Your task to perform on an android device: turn on the 24-hour format for clock Image 0: 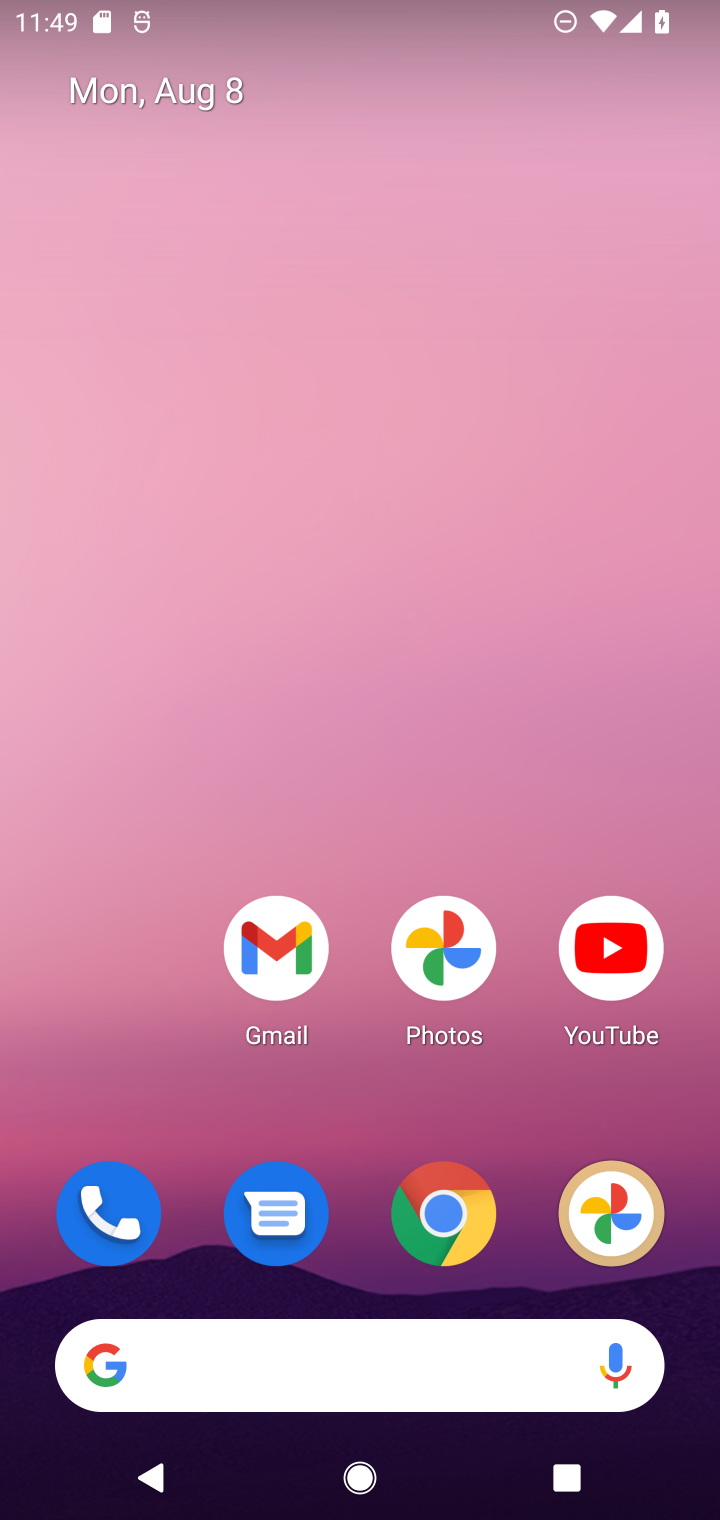
Step 0: drag from (520, 1143) to (597, 109)
Your task to perform on an android device: turn on the 24-hour format for clock Image 1: 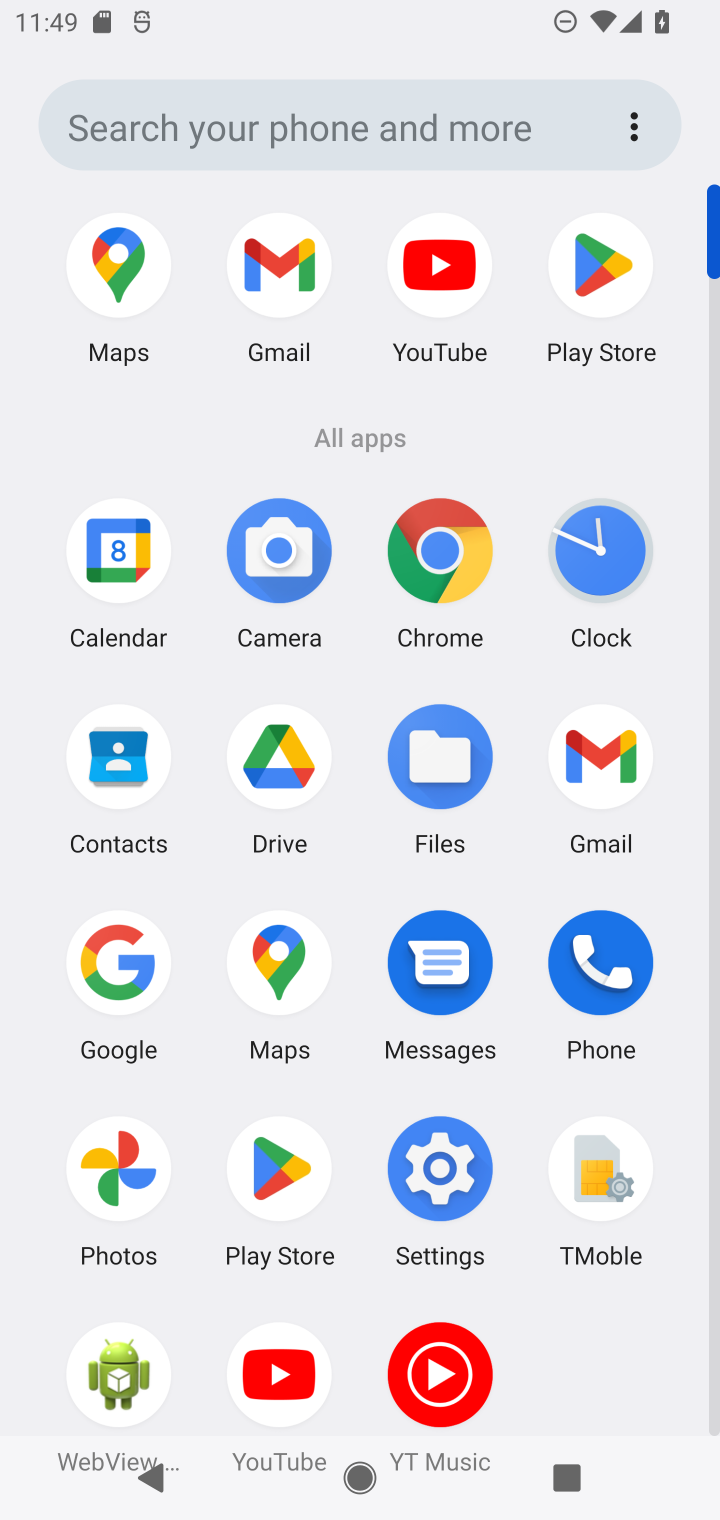
Step 1: click (596, 549)
Your task to perform on an android device: turn on the 24-hour format for clock Image 2: 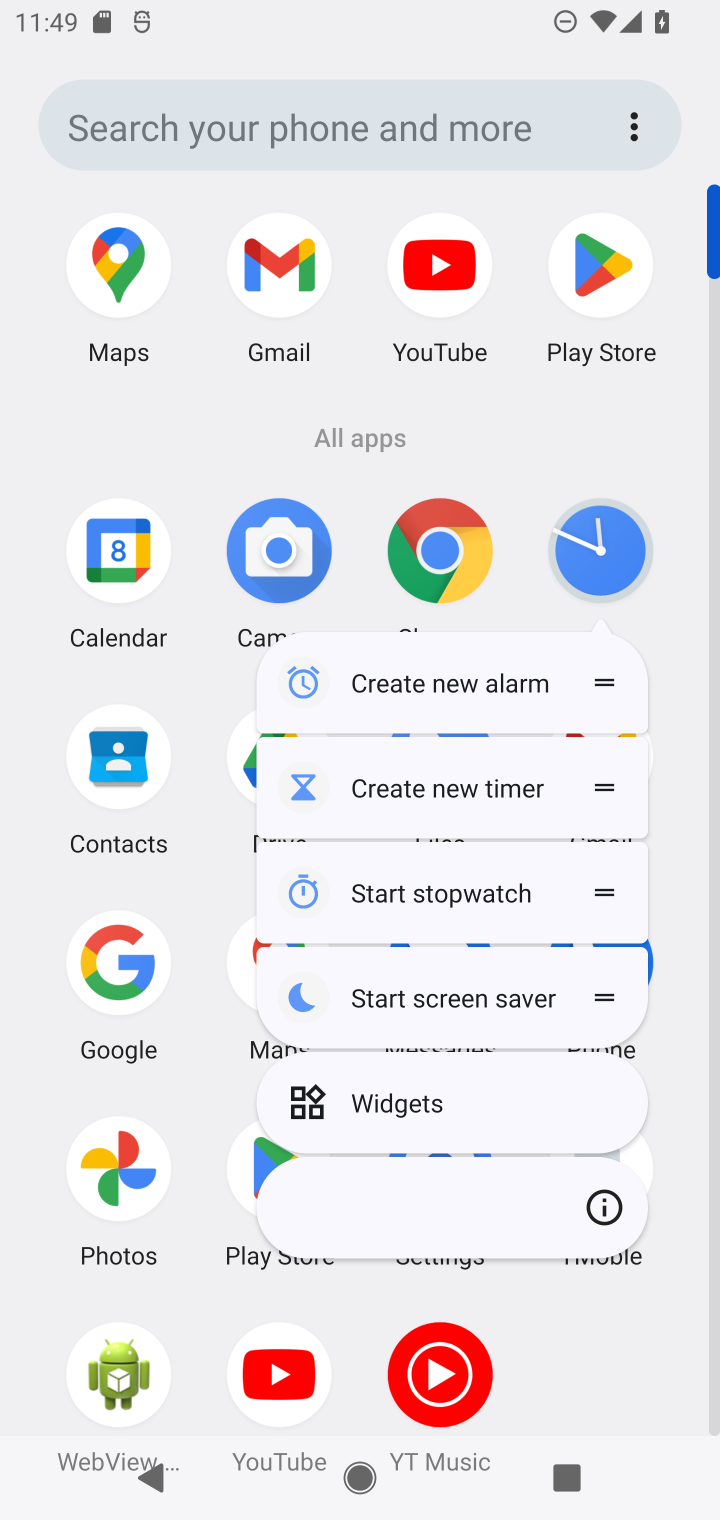
Step 2: click (609, 542)
Your task to perform on an android device: turn on the 24-hour format for clock Image 3: 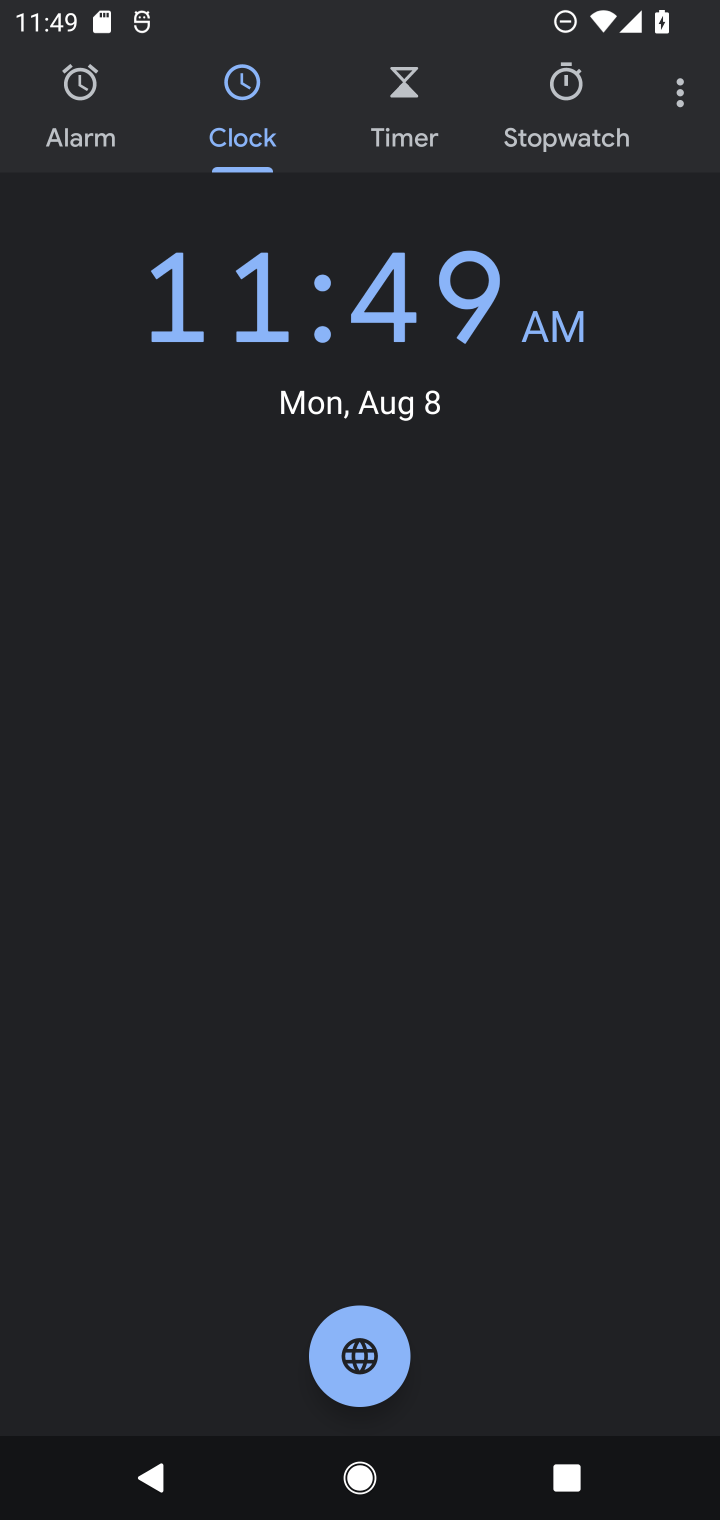
Step 3: click (690, 83)
Your task to perform on an android device: turn on the 24-hour format for clock Image 4: 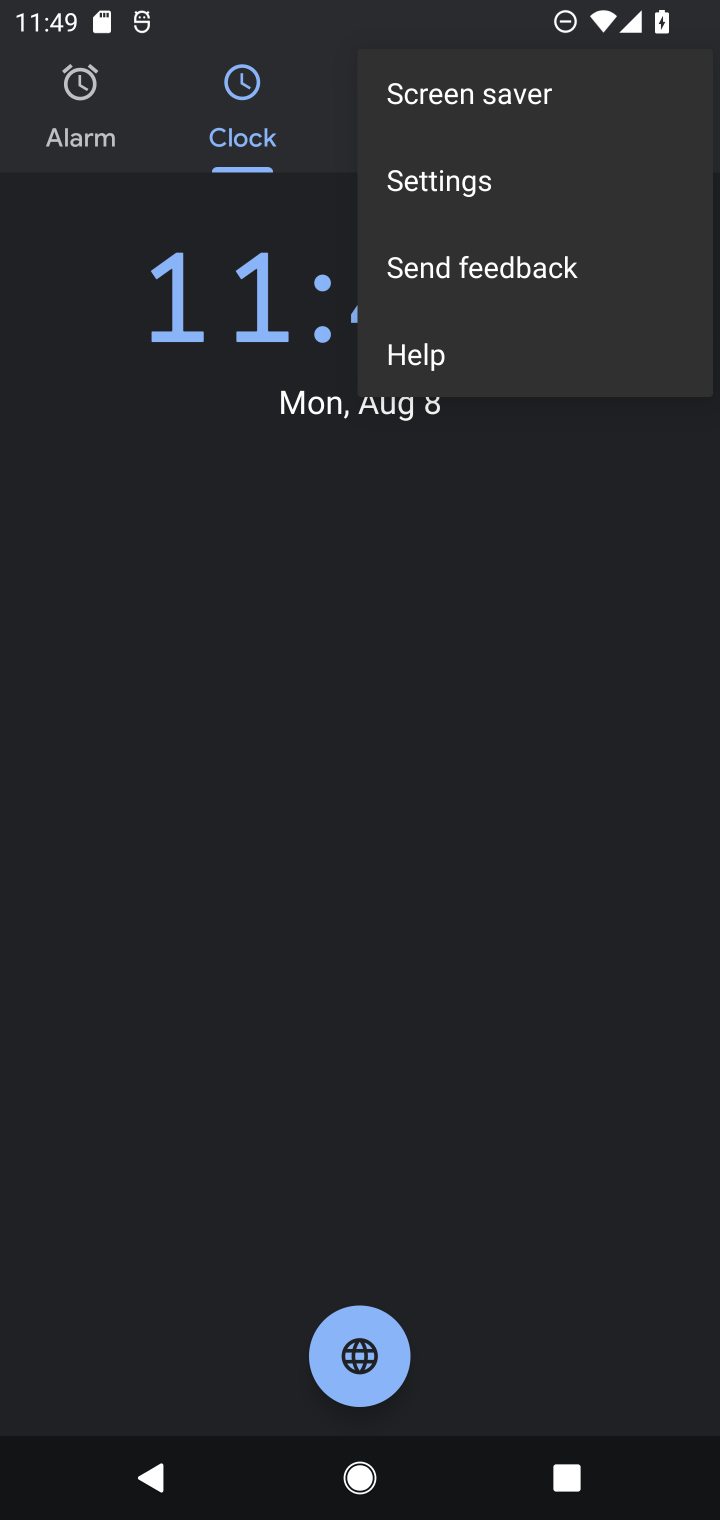
Step 4: click (513, 182)
Your task to perform on an android device: turn on the 24-hour format for clock Image 5: 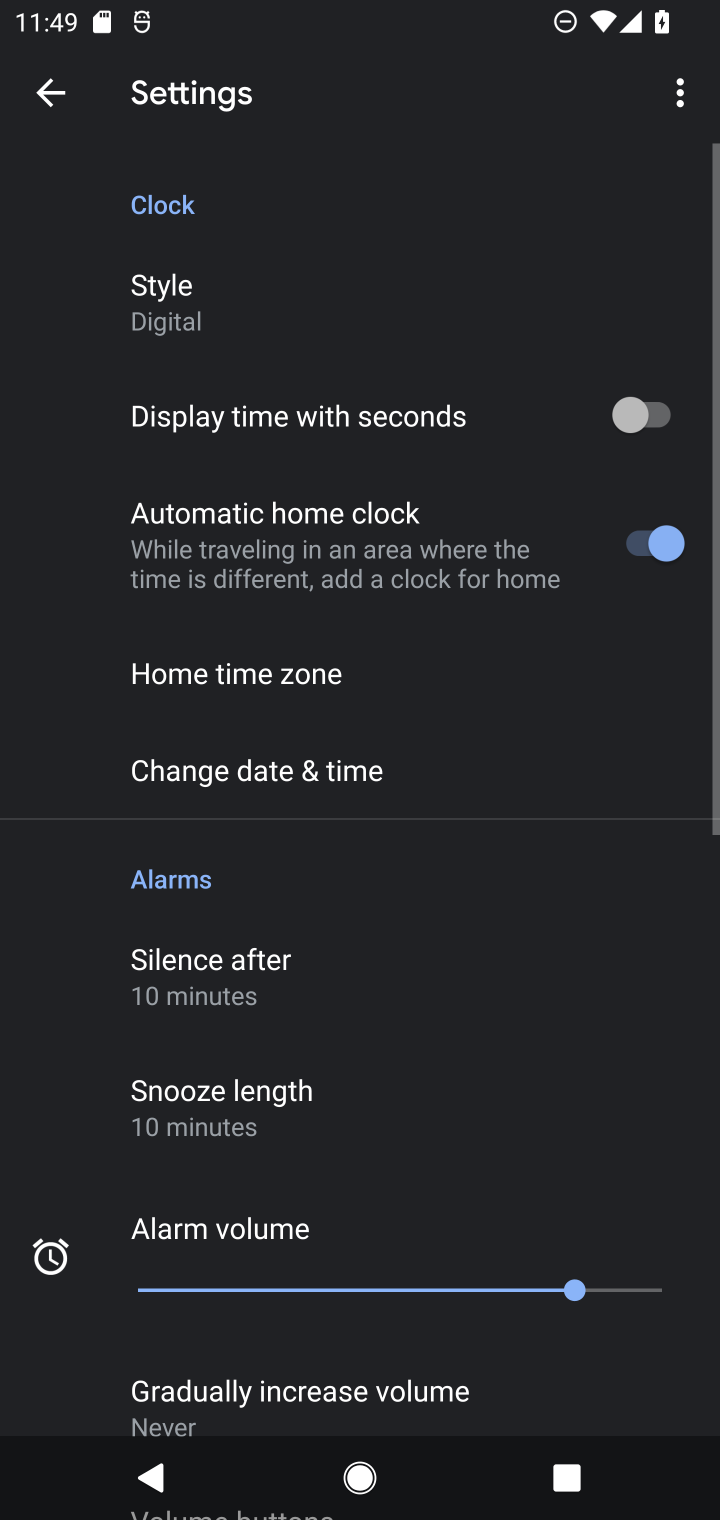
Step 5: click (414, 776)
Your task to perform on an android device: turn on the 24-hour format for clock Image 6: 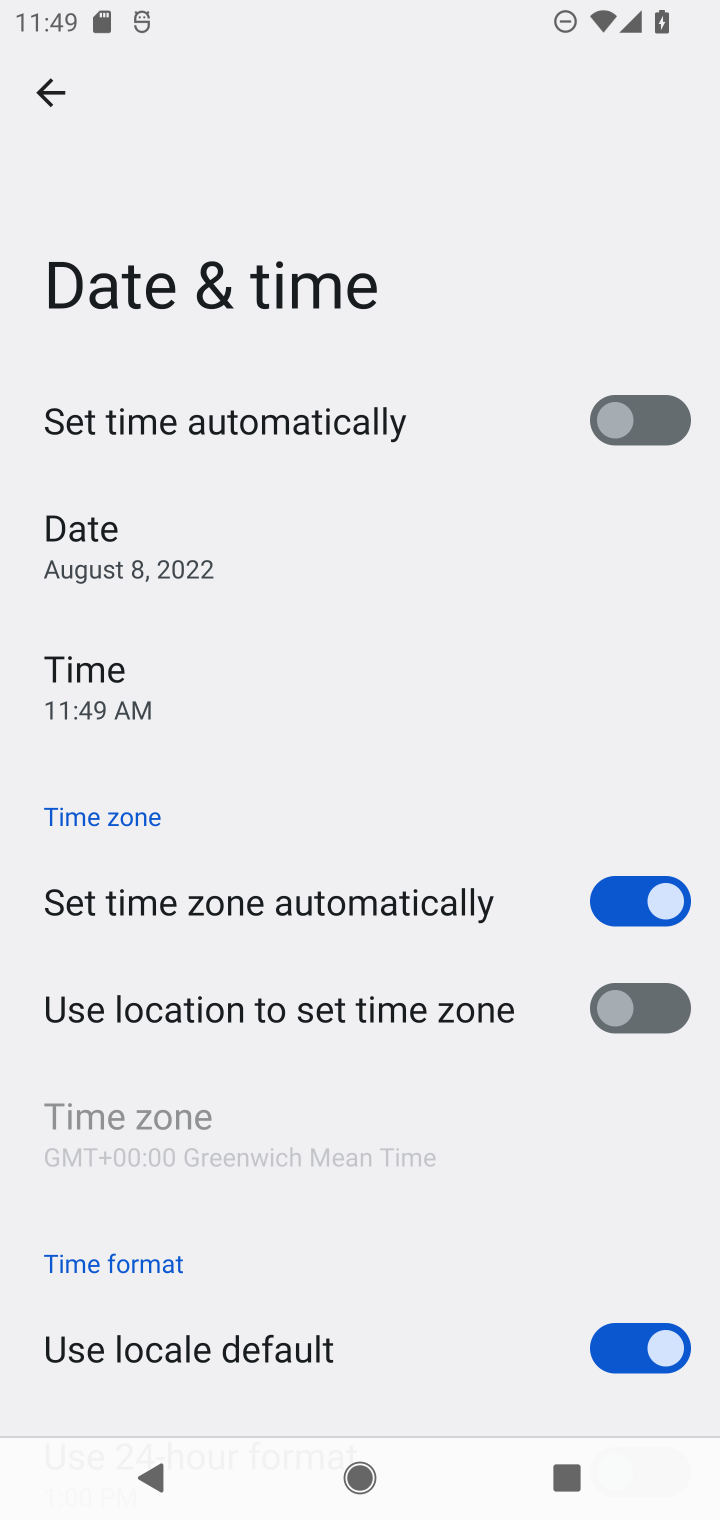
Step 6: drag from (406, 1192) to (494, 285)
Your task to perform on an android device: turn on the 24-hour format for clock Image 7: 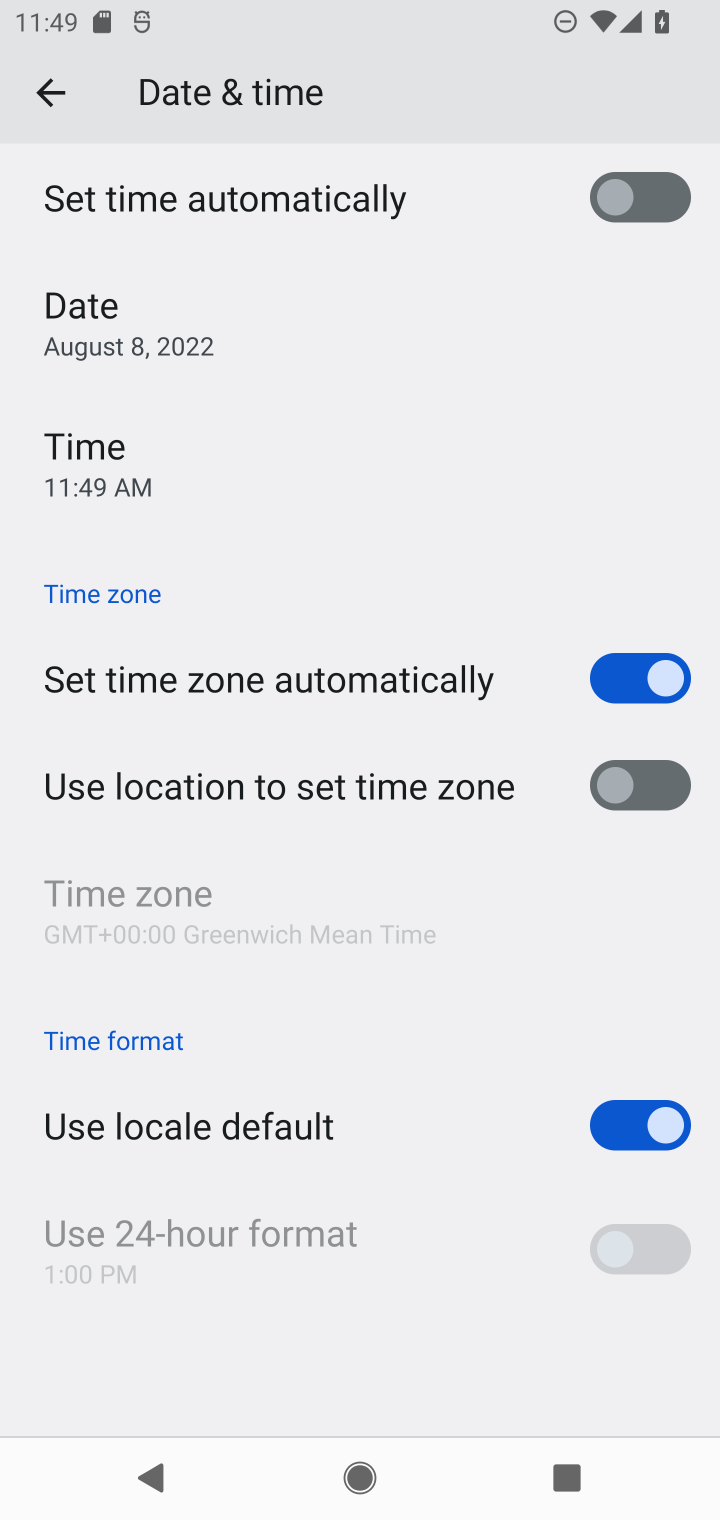
Step 7: click (640, 1113)
Your task to perform on an android device: turn on the 24-hour format for clock Image 8: 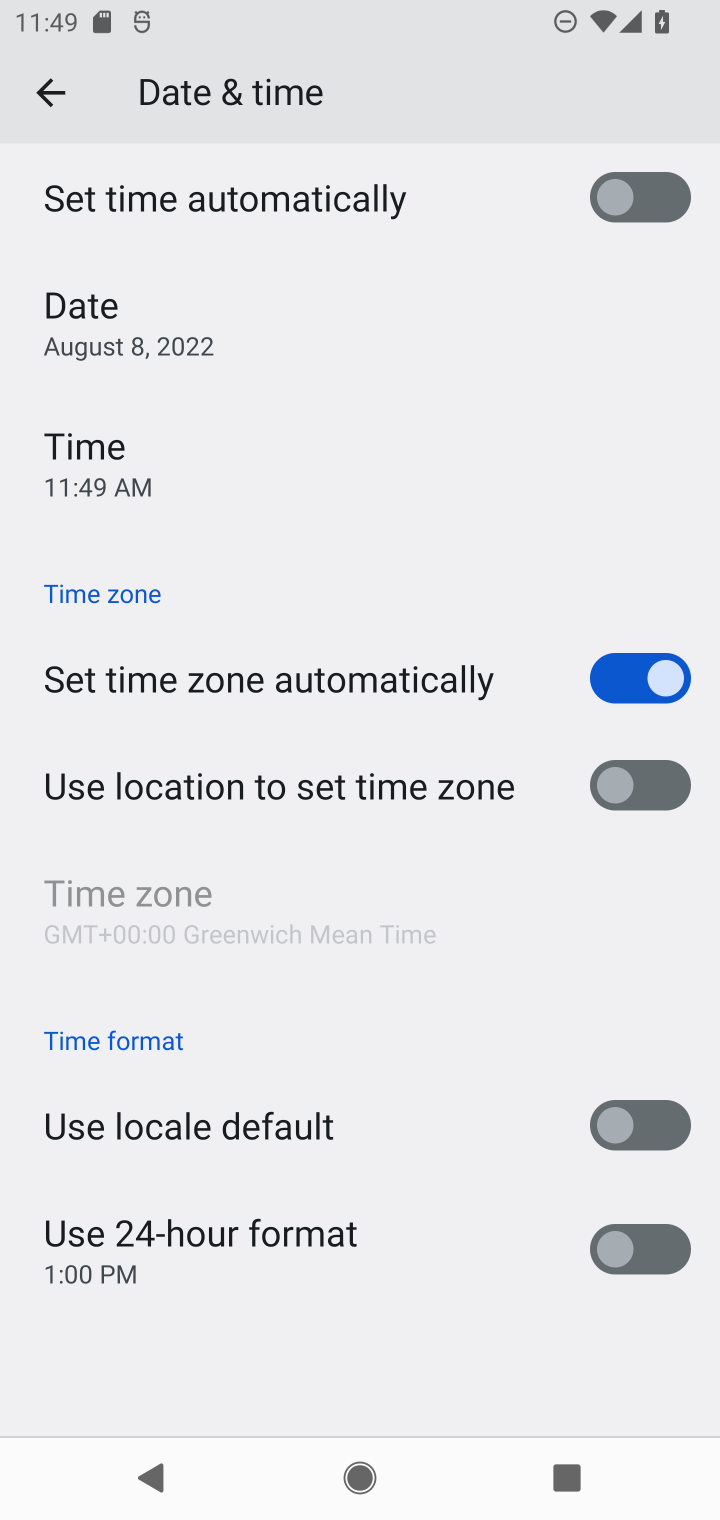
Step 8: click (632, 1251)
Your task to perform on an android device: turn on the 24-hour format for clock Image 9: 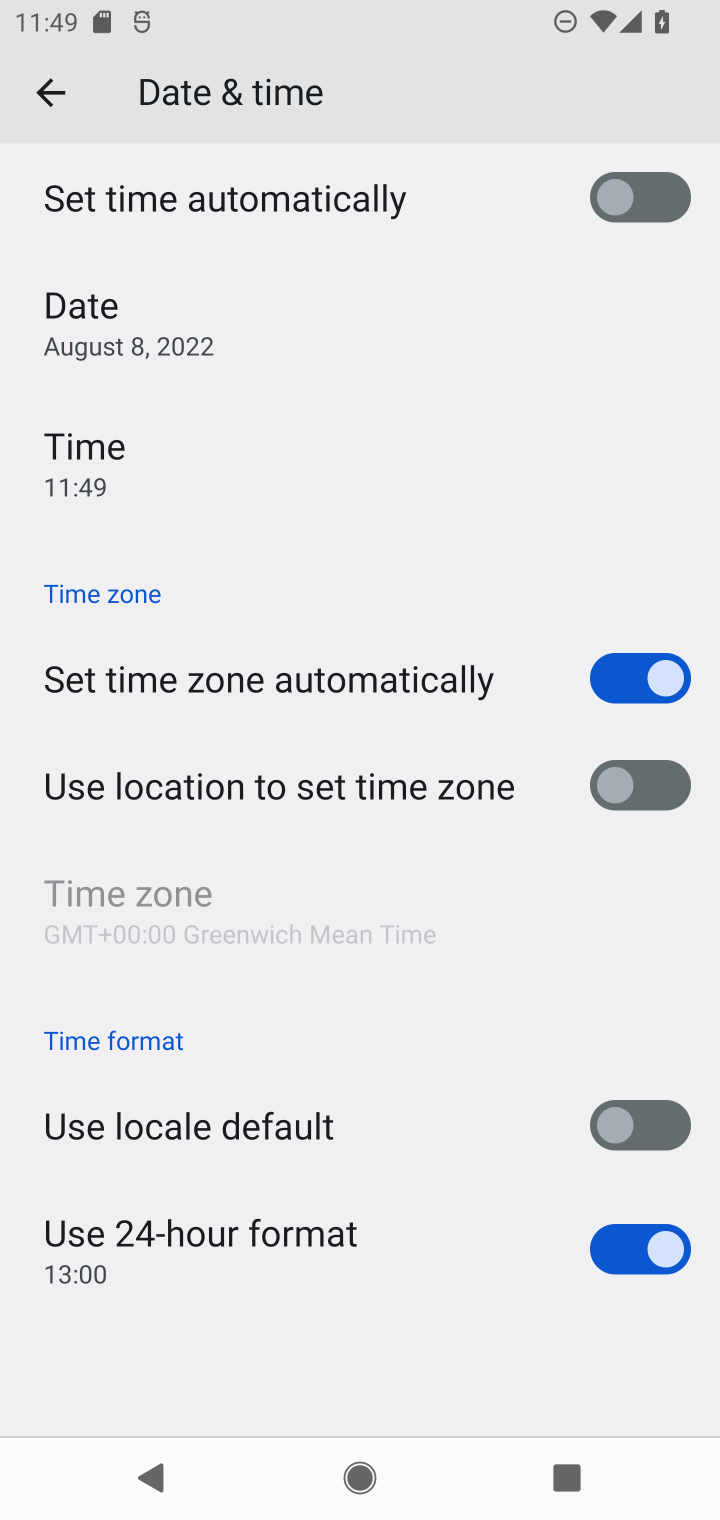
Step 9: task complete